Your task to perform on an android device: Go to accessibility settings Image 0: 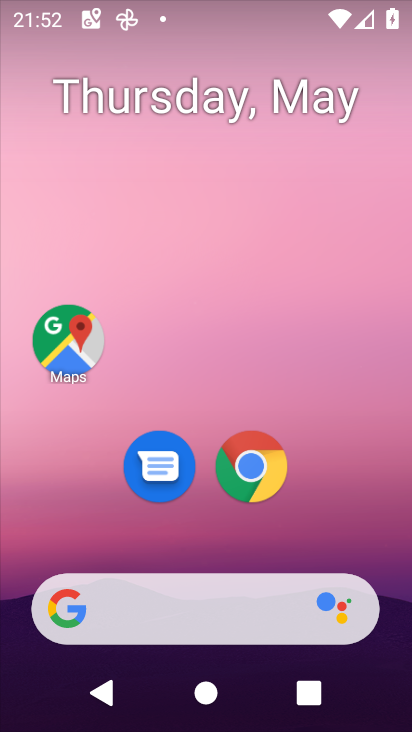
Step 0: drag from (378, 526) to (353, 78)
Your task to perform on an android device: Go to accessibility settings Image 1: 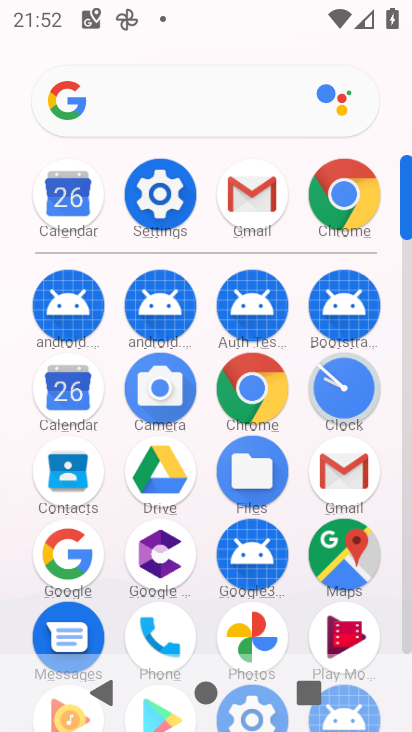
Step 1: click (170, 196)
Your task to perform on an android device: Go to accessibility settings Image 2: 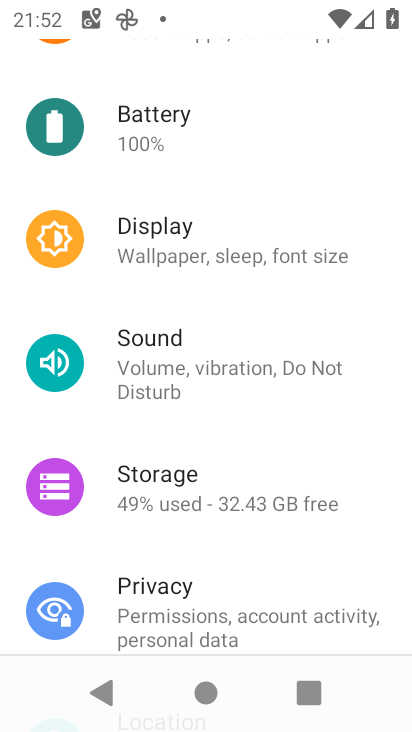
Step 2: drag from (184, 571) to (243, 139)
Your task to perform on an android device: Go to accessibility settings Image 3: 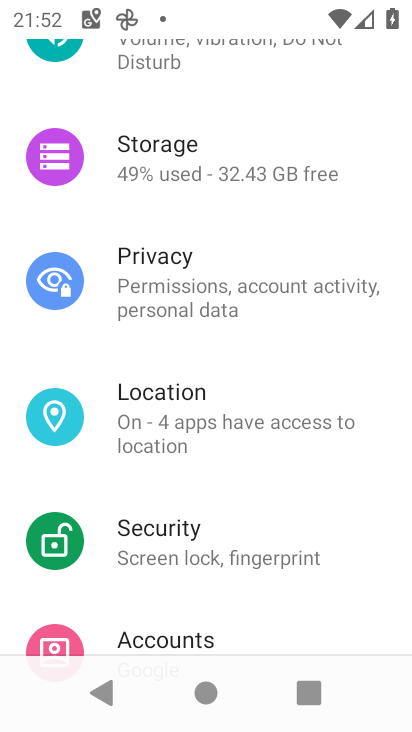
Step 3: drag from (214, 540) to (224, 268)
Your task to perform on an android device: Go to accessibility settings Image 4: 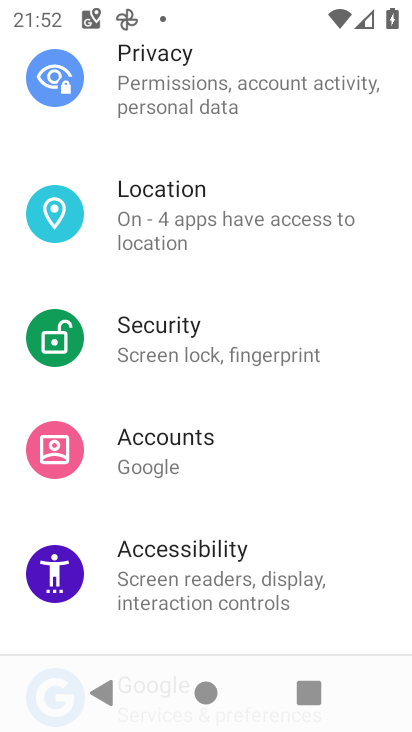
Step 4: click (213, 607)
Your task to perform on an android device: Go to accessibility settings Image 5: 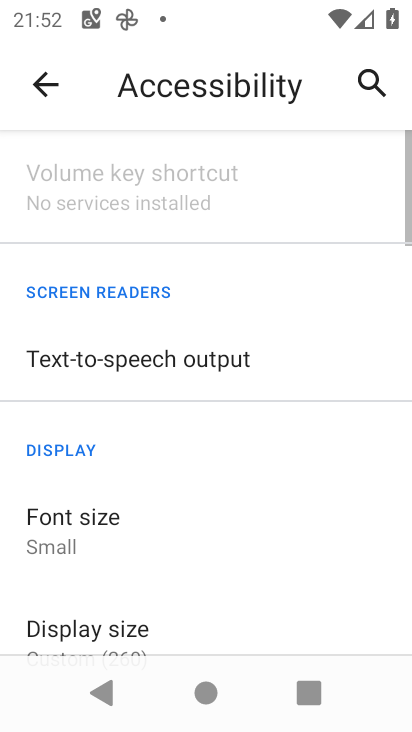
Step 5: task complete